Your task to perform on an android device: manage bookmarks in the chrome app Image 0: 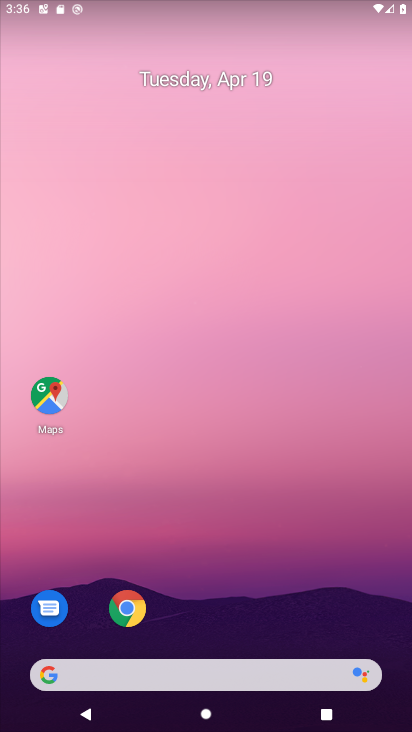
Step 0: drag from (278, 617) to (294, 81)
Your task to perform on an android device: manage bookmarks in the chrome app Image 1: 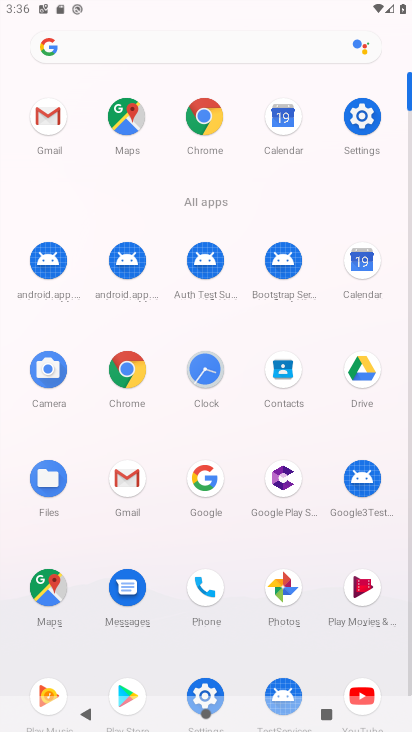
Step 1: click (122, 370)
Your task to perform on an android device: manage bookmarks in the chrome app Image 2: 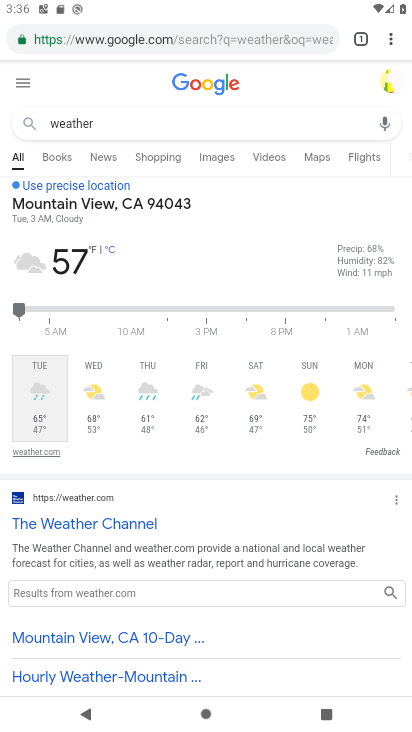
Step 2: task complete